Your task to perform on an android device: turn on airplane mode Image 0: 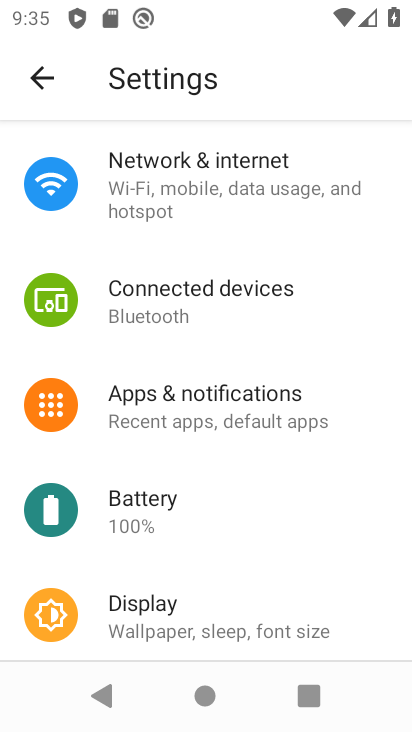
Step 0: click (191, 189)
Your task to perform on an android device: turn on airplane mode Image 1: 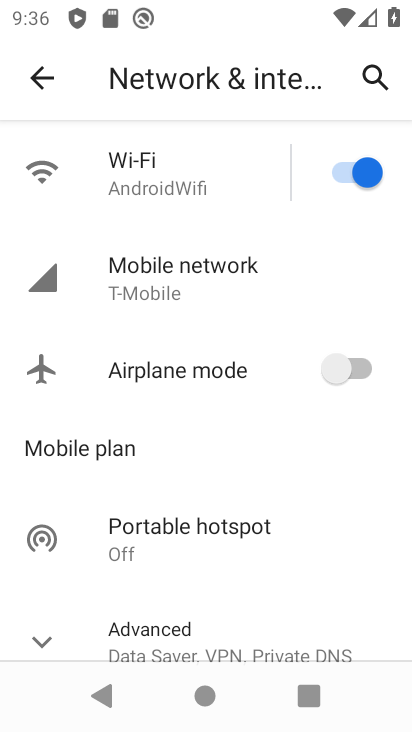
Step 1: click (361, 364)
Your task to perform on an android device: turn on airplane mode Image 2: 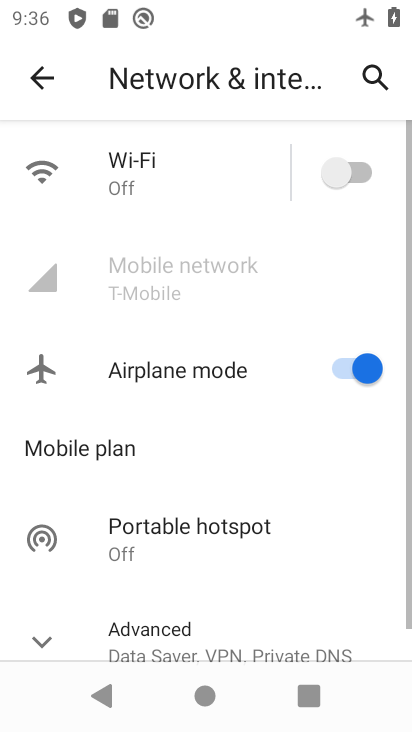
Step 2: task complete